Your task to perform on an android device: toggle improve location accuracy Image 0: 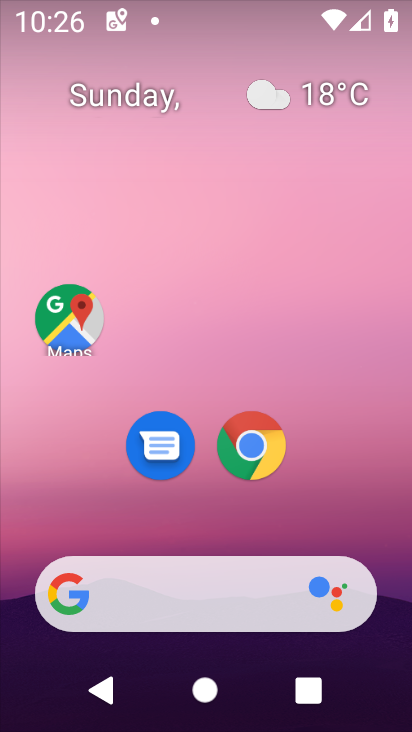
Step 0: drag from (206, 524) to (250, 1)
Your task to perform on an android device: toggle improve location accuracy Image 1: 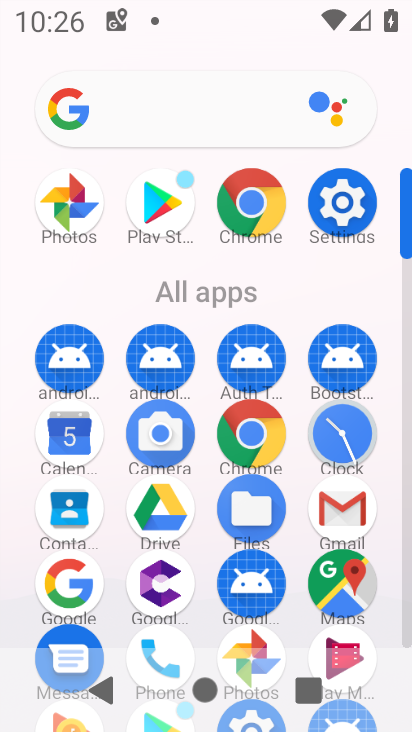
Step 1: click (343, 193)
Your task to perform on an android device: toggle improve location accuracy Image 2: 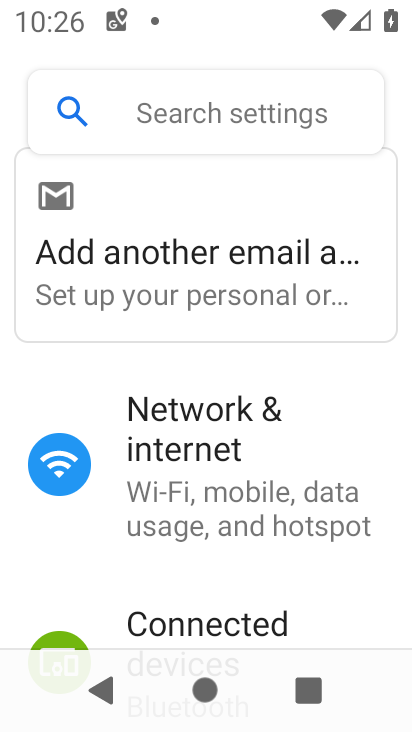
Step 2: drag from (308, 605) to (307, 32)
Your task to perform on an android device: toggle improve location accuracy Image 3: 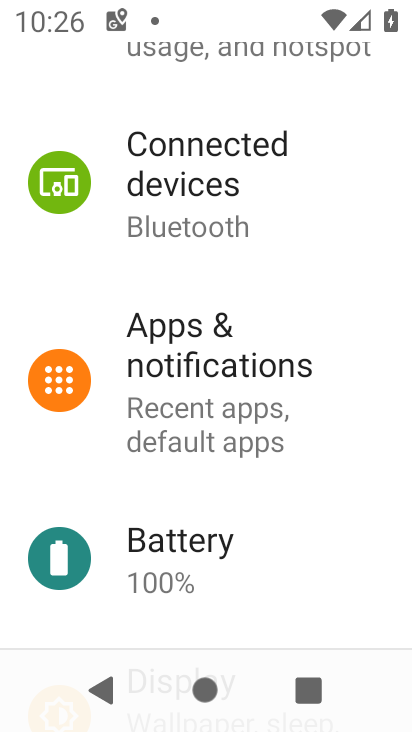
Step 3: drag from (262, 611) to (307, 105)
Your task to perform on an android device: toggle improve location accuracy Image 4: 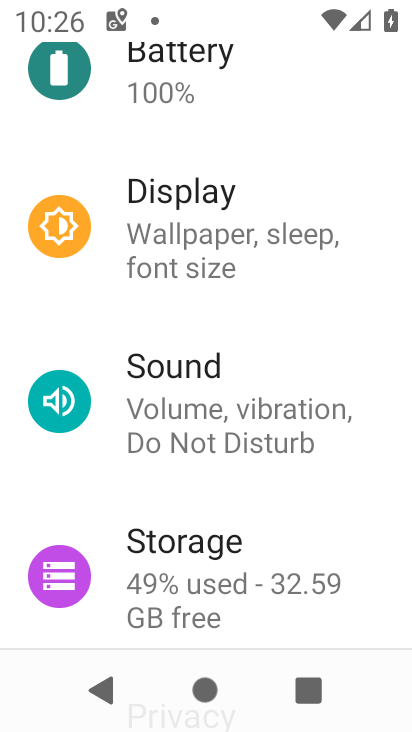
Step 4: drag from (250, 614) to (297, 61)
Your task to perform on an android device: toggle improve location accuracy Image 5: 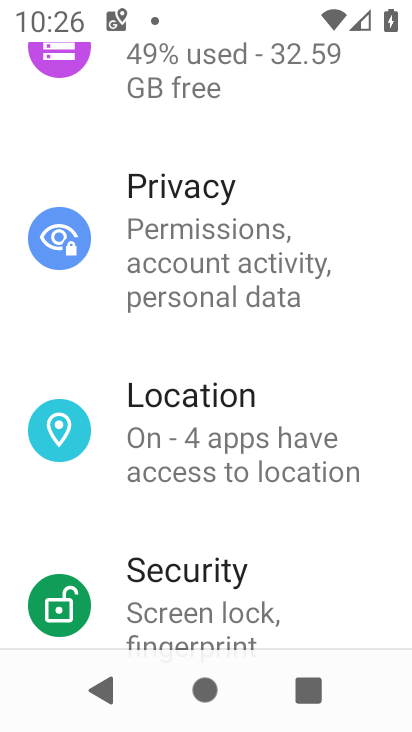
Step 5: click (271, 391)
Your task to perform on an android device: toggle improve location accuracy Image 6: 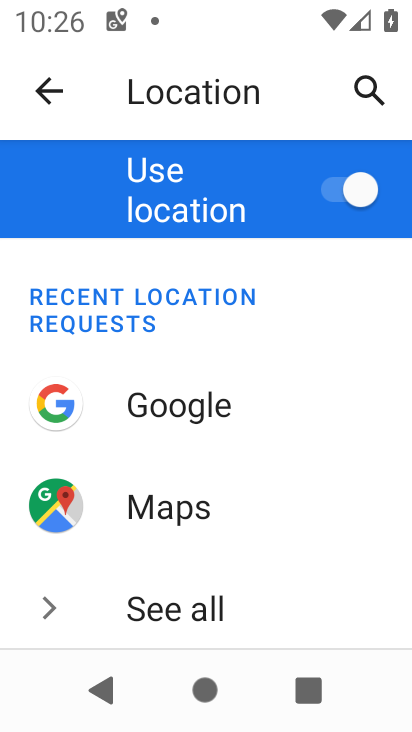
Step 6: drag from (274, 619) to (278, 148)
Your task to perform on an android device: toggle improve location accuracy Image 7: 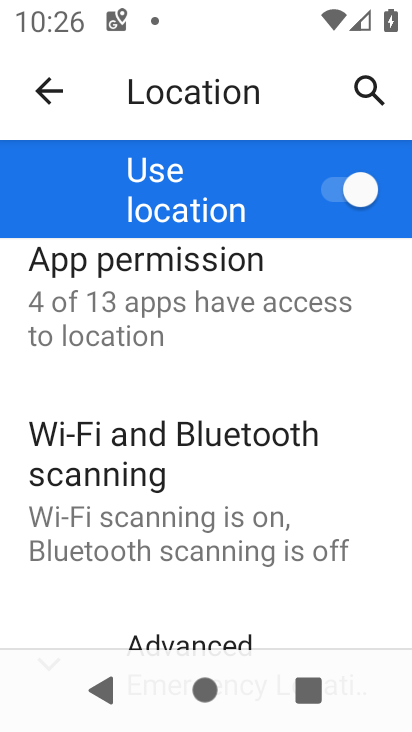
Step 7: drag from (249, 606) to (287, 286)
Your task to perform on an android device: toggle improve location accuracy Image 8: 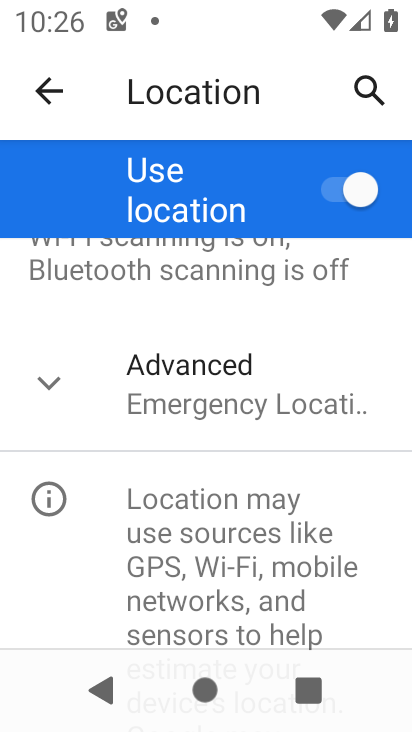
Step 8: click (51, 374)
Your task to perform on an android device: toggle improve location accuracy Image 9: 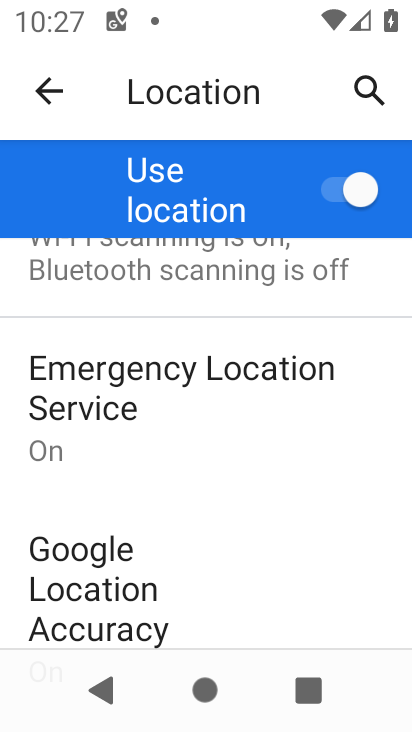
Step 9: click (211, 575)
Your task to perform on an android device: toggle improve location accuracy Image 10: 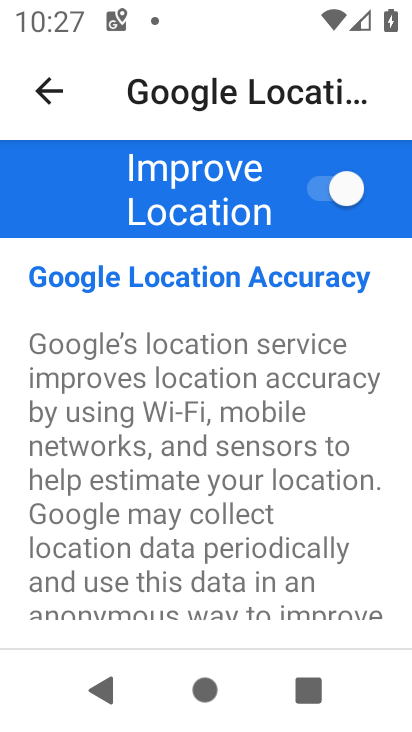
Step 10: click (325, 184)
Your task to perform on an android device: toggle improve location accuracy Image 11: 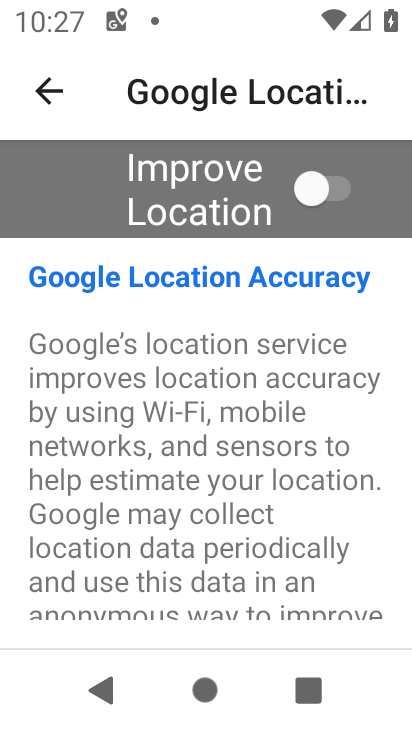
Step 11: task complete